Your task to perform on an android device: Open the Play Movies app and select the watchlist tab. Image 0: 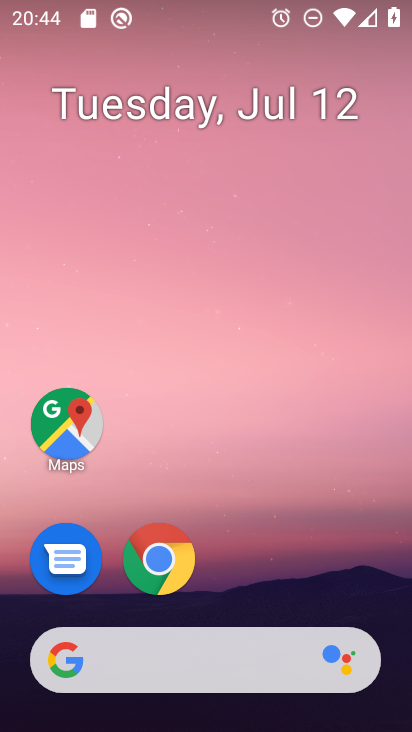
Step 0: drag from (331, 562) to (356, 133)
Your task to perform on an android device: Open the Play Movies app and select the watchlist tab. Image 1: 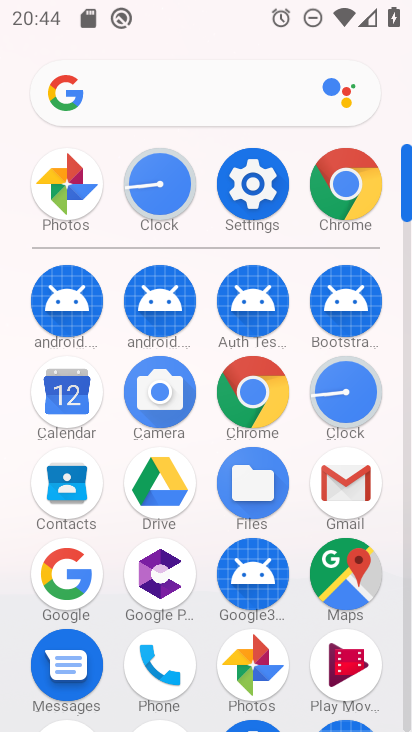
Step 1: click (346, 660)
Your task to perform on an android device: Open the Play Movies app and select the watchlist tab. Image 2: 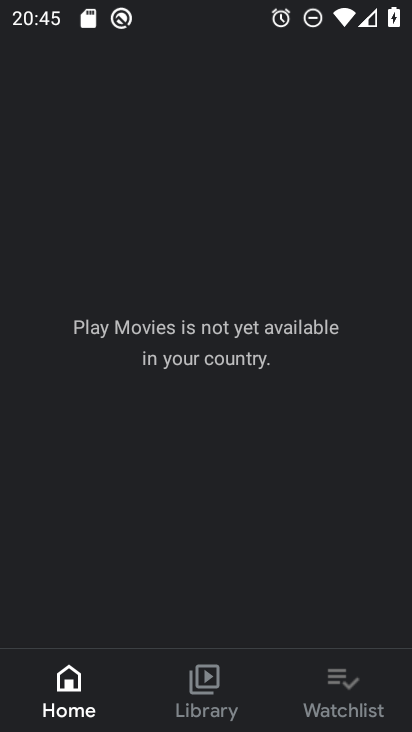
Step 2: click (339, 711)
Your task to perform on an android device: Open the Play Movies app and select the watchlist tab. Image 3: 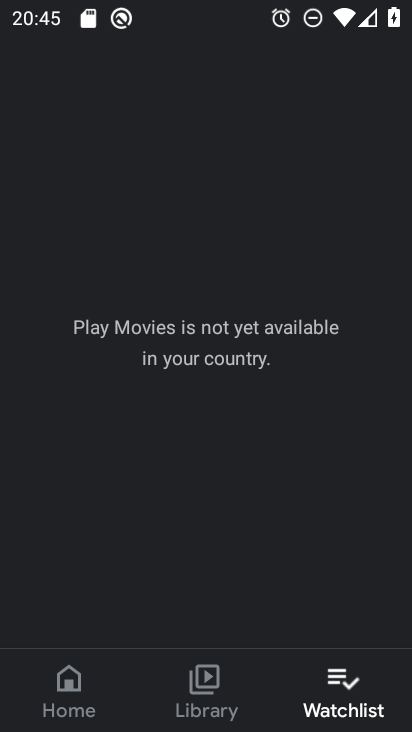
Step 3: task complete